Your task to perform on an android device: Open Youtube and go to the subscriptions tab Image 0: 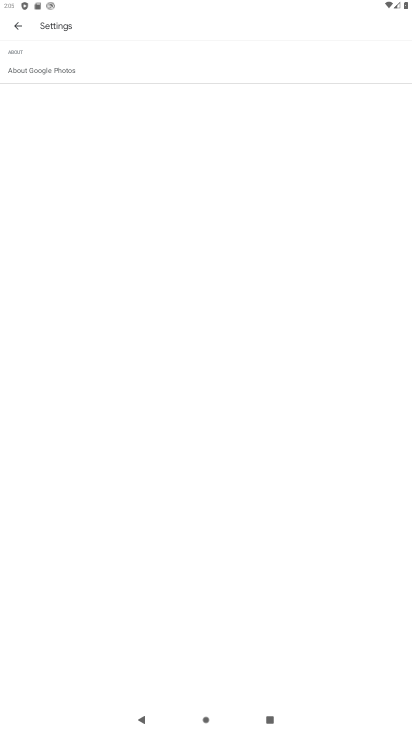
Step 0: press home button
Your task to perform on an android device: Open Youtube and go to the subscriptions tab Image 1: 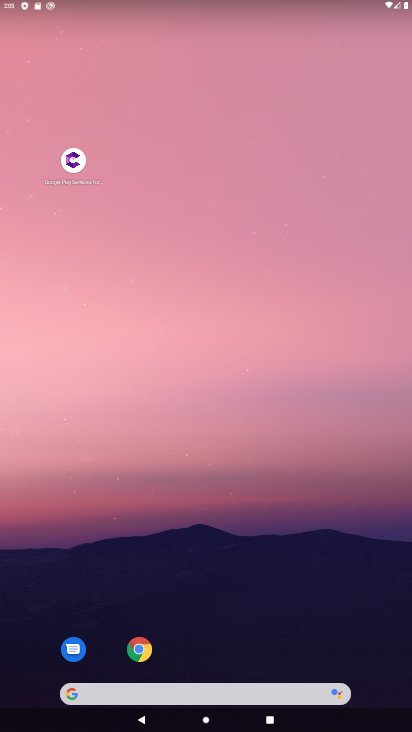
Step 1: drag from (171, 687) to (269, 243)
Your task to perform on an android device: Open Youtube and go to the subscriptions tab Image 2: 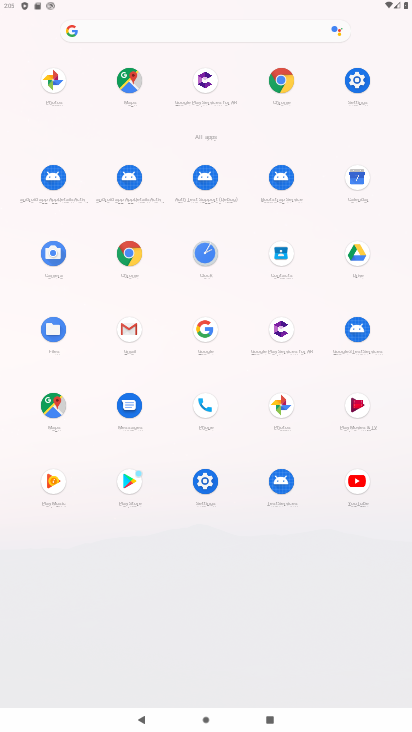
Step 2: click (345, 492)
Your task to perform on an android device: Open Youtube and go to the subscriptions tab Image 3: 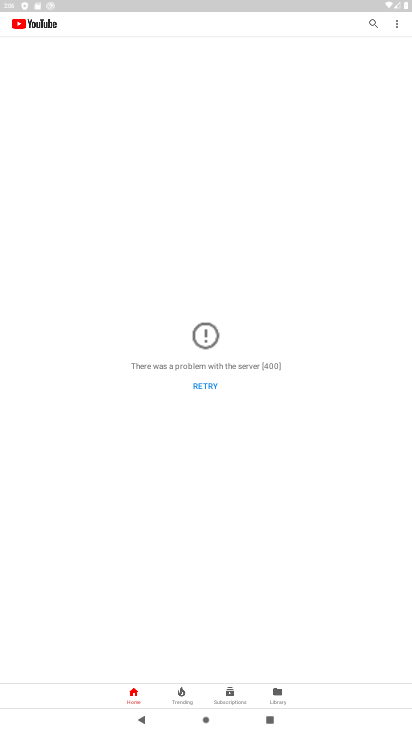
Step 3: click (223, 687)
Your task to perform on an android device: Open Youtube and go to the subscriptions tab Image 4: 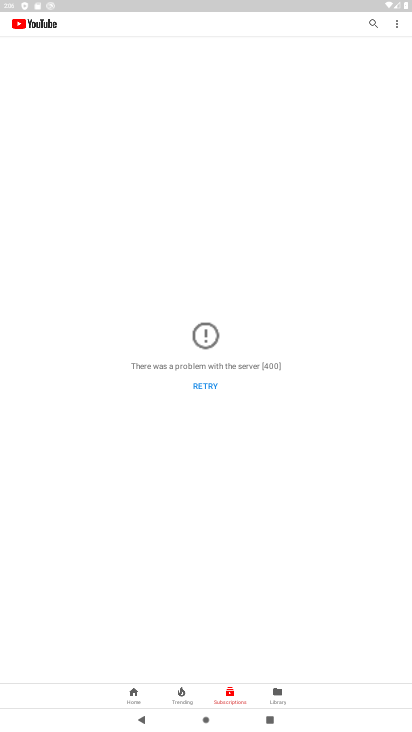
Step 4: task complete